Your task to perform on an android device: open device folders in google photos Image 0: 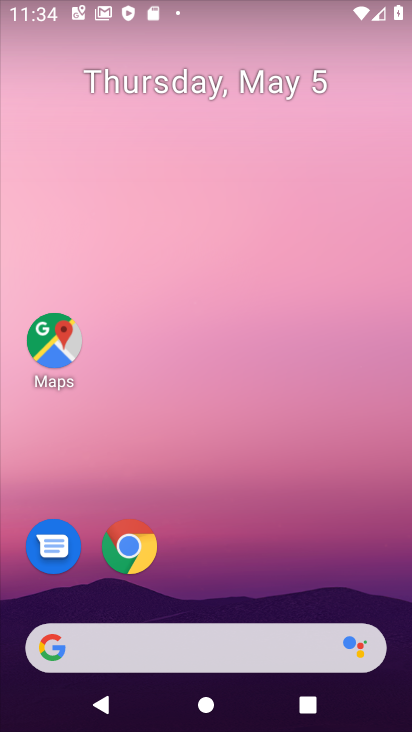
Step 0: drag from (190, 543) to (190, 49)
Your task to perform on an android device: open device folders in google photos Image 1: 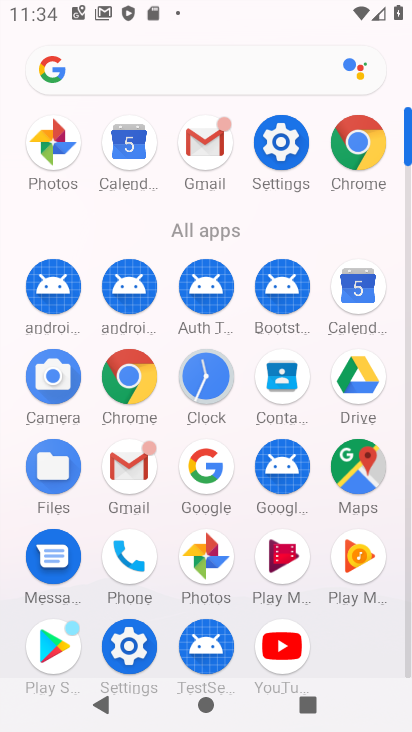
Step 1: click (211, 557)
Your task to perform on an android device: open device folders in google photos Image 2: 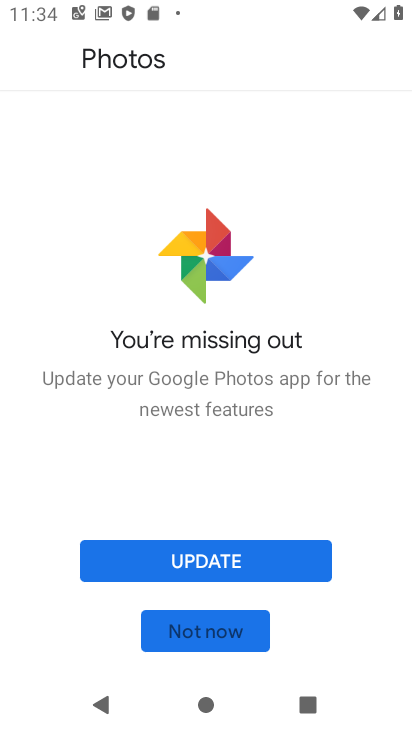
Step 2: click (282, 546)
Your task to perform on an android device: open device folders in google photos Image 3: 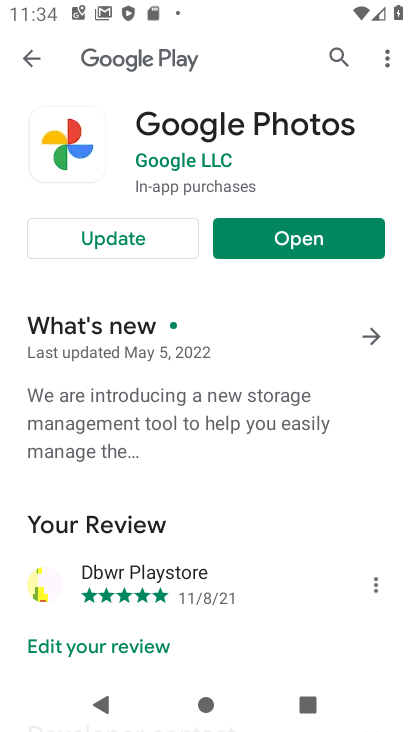
Step 3: click (159, 241)
Your task to perform on an android device: open device folders in google photos Image 4: 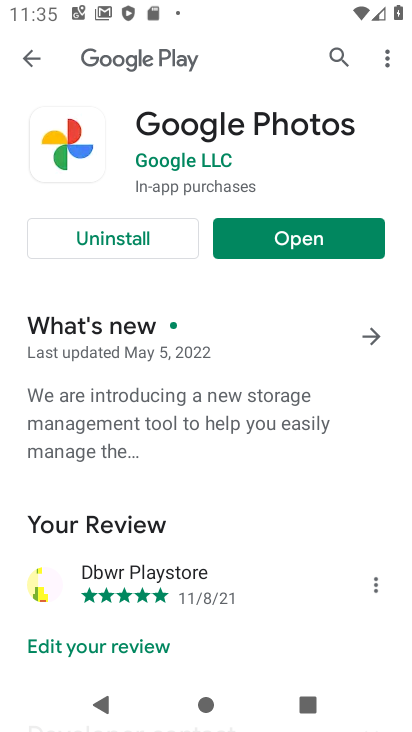
Step 4: click (314, 238)
Your task to perform on an android device: open device folders in google photos Image 5: 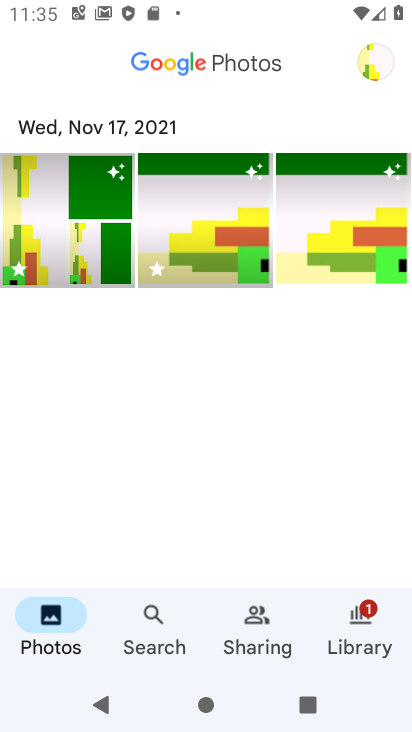
Step 5: click (359, 628)
Your task to perform on an android device: open device folders in google photos Image 6: 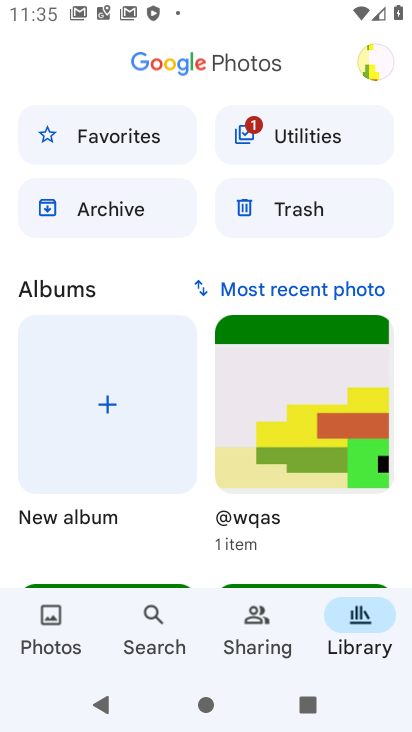
Step 6: drag from (204, 541) to (184, 217)
Your task to perform on an android device: open device folders in google photos Image 7: 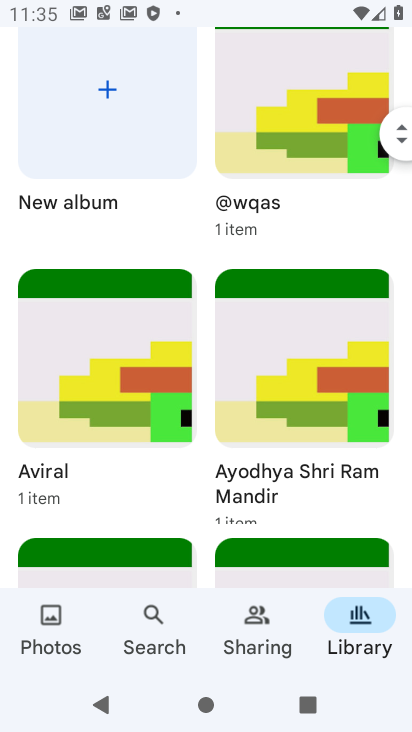
Step 7: drag from (201, 493) to (193, 197)
Your task to perform on an android device: open device folders in google photos Image 8: 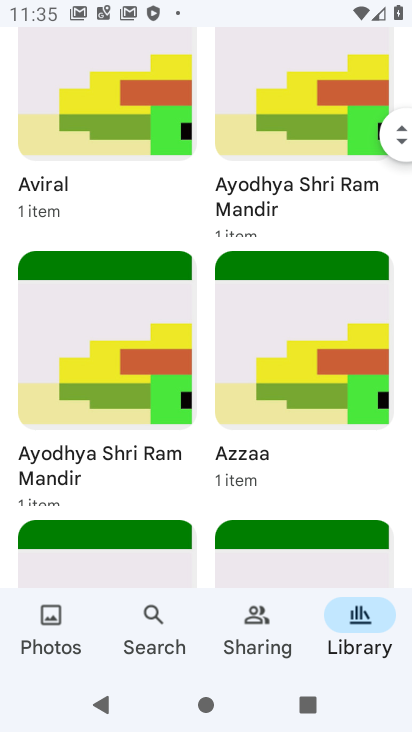
Step 8: drag from (218, 497) to (206, 143)
Your task to perform on an android device: open device folders in google photos Image 9: 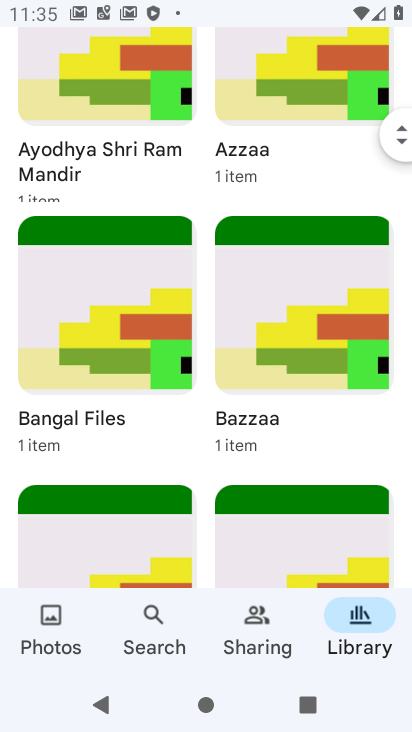
Step 9: drag from (207, 174) to (135, 674)
Your task to perform on an android device: open device folders in google photos Image 10: 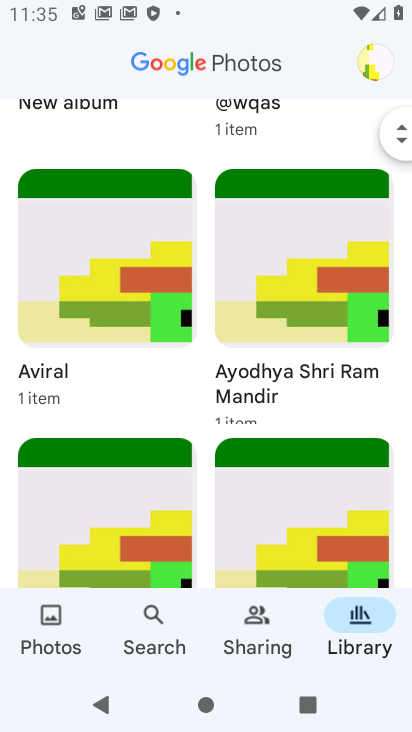
Step 10: drag from (203, 121) to (183, 652)
Your task to perform on an android device: open device folders in google photos Image 11: 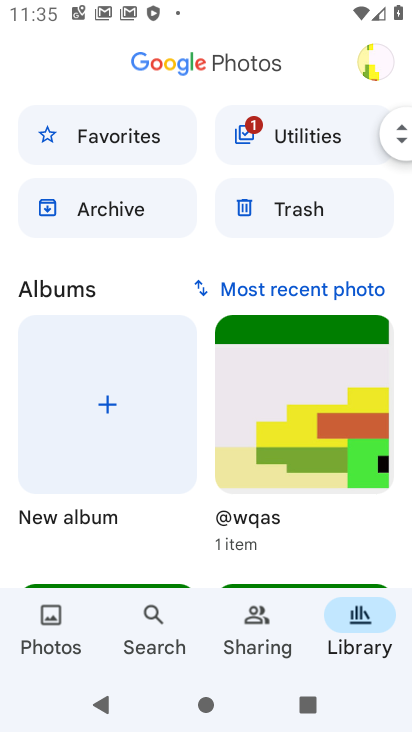
Step 11: click (150, 621)
Your task to perform on an android device: open device folders in google photos Image 12: 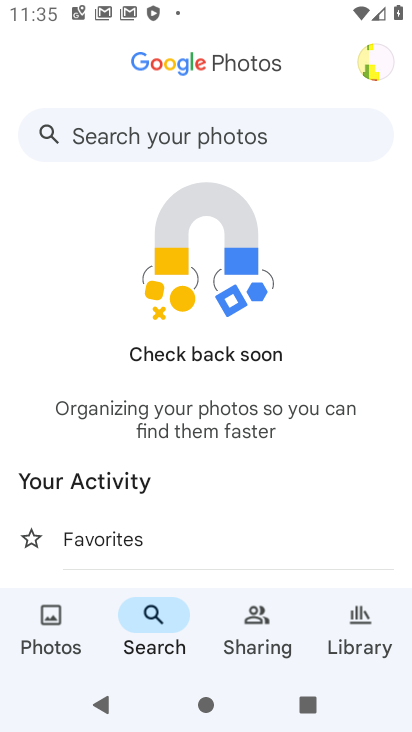
Step 12: click (258, 126)
Your task to perform on an android device: open device folders in google photos Image 13: 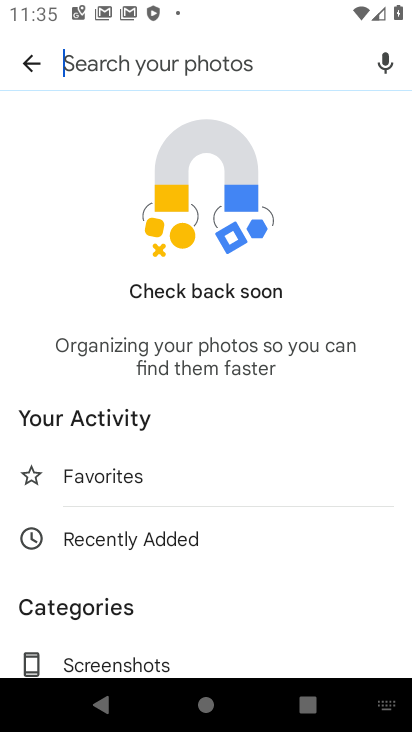
Step 13: type "device"
Your task to perform on an android device: open device folders in google photos Image 14: 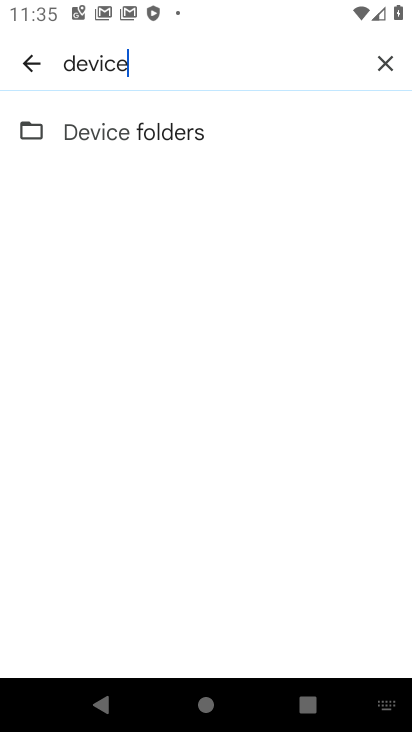
Step 14: click (138, 138)
Your task to perform on an android device: open device folders in google photos Image 15: 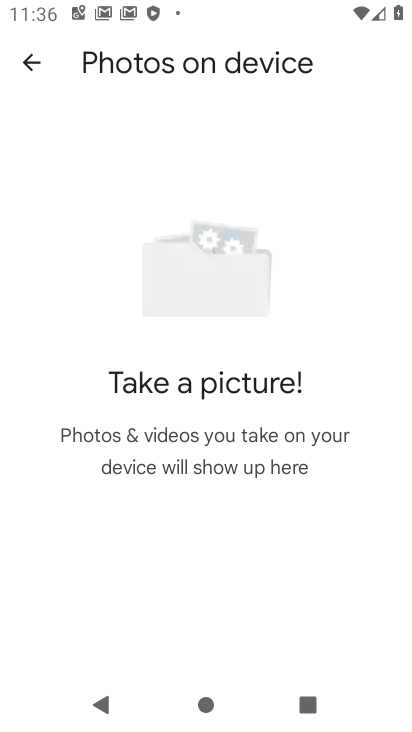
Step 15: task complete